Your task to perform on an android device: turn off data saver in the chrome app Image 0: 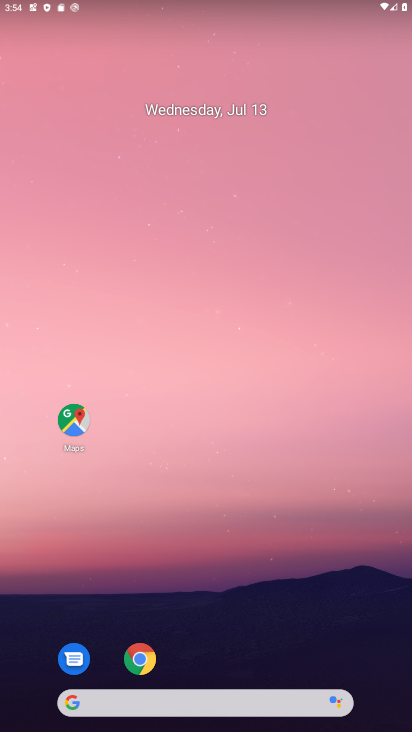
Step 0: press home button
Your task to perform on an android device: turn off data saver in the chrome app Image 1: 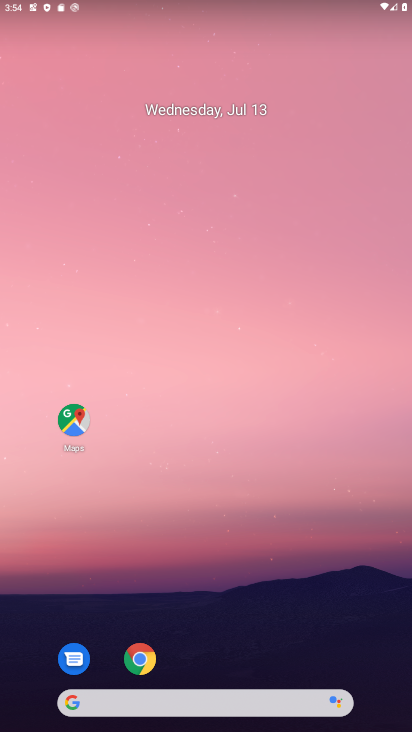
Step 1: click (139, 656)
Your task to perform on an android device: turn off data saver in the chrome app Image 2: 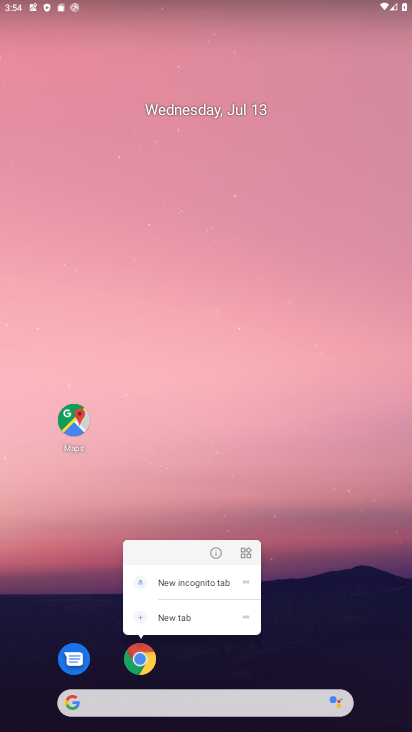
Step 2: click (278, 426)
Your task to perform on an android device: turn off data saver in the chrome app Image 3: 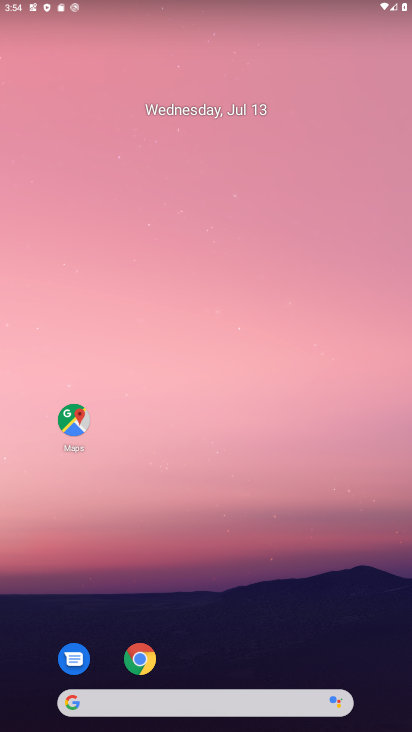
Step 3: click (135, 656)
Your task to perform on an android device: turn off data saver in the chrome app Image 4: 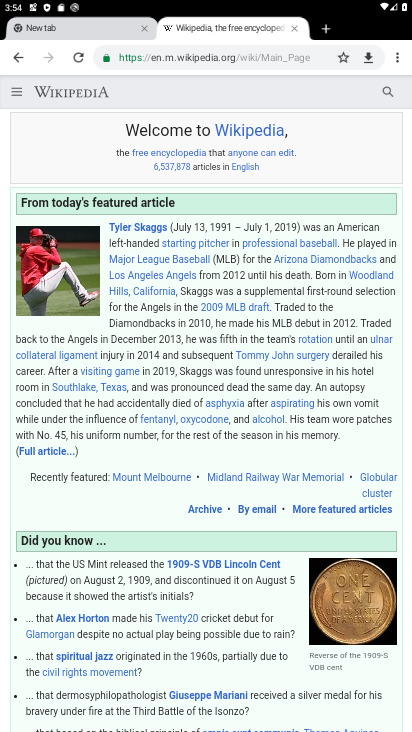
Step 4: click (292, 24)
Your task to perform on an android device: turn off data saver in the chrome app Image 5: 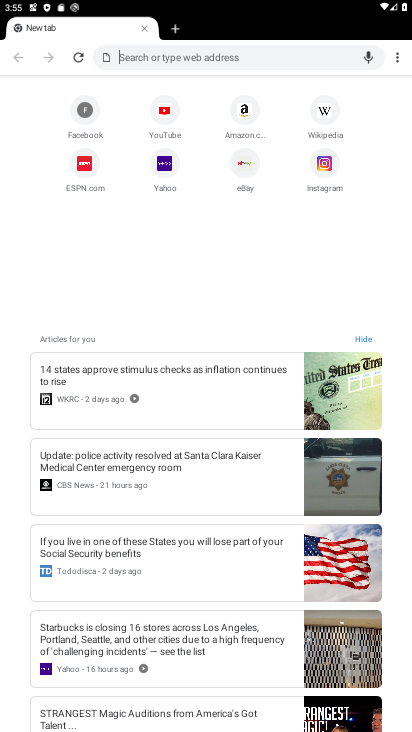
Step 5: click (393, 56)
Your task to perform on an android device: turn off data saver in the chrome app Image 6: 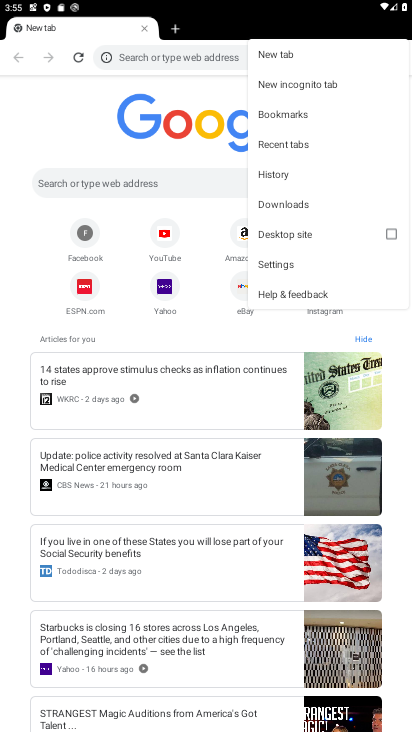
Step 6: click (305, 257)
Your task to perform on an android device: turn off data saver in the chrome app Image 7: 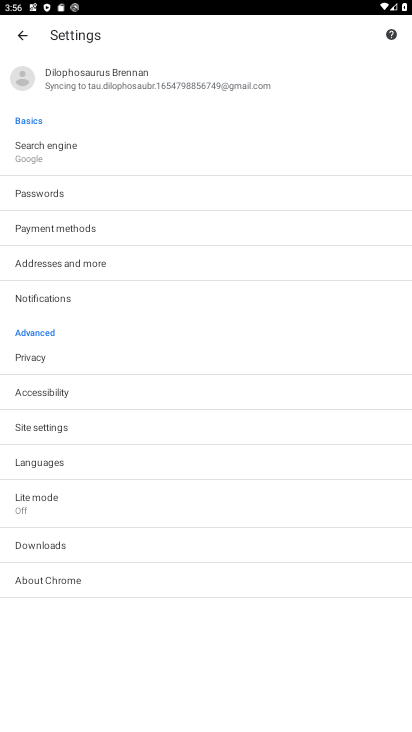
Step 7: click (76, 506)
Your task to perform on an android device: turn off data saver in the chrome app Image 8: 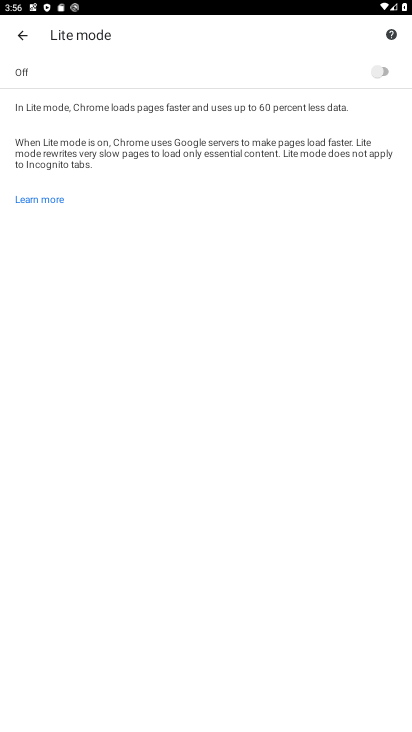
Step 8: task complete